Your task to perform on an android device: Go to settings Image 0: 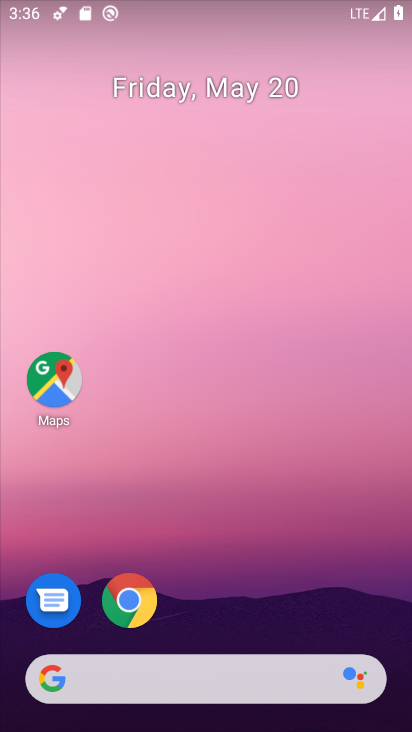
Step 0: drag from (386, 604) to (366, 220)
Your task to perform on an android device: Go to settings Image 1: 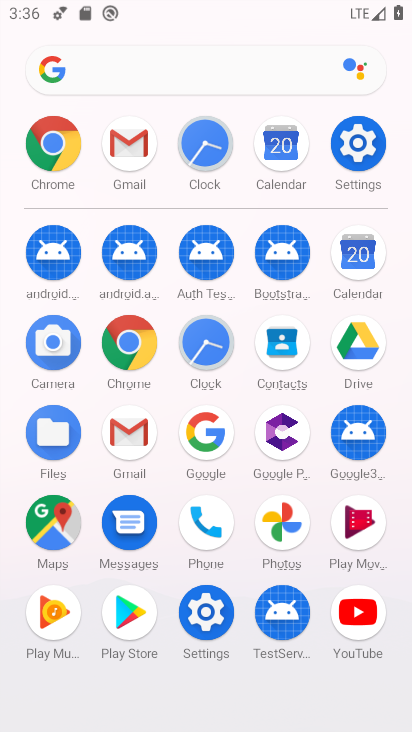
Step 1: click (344, 154)
Your task to perform on an android device: Go to settings Image 2: 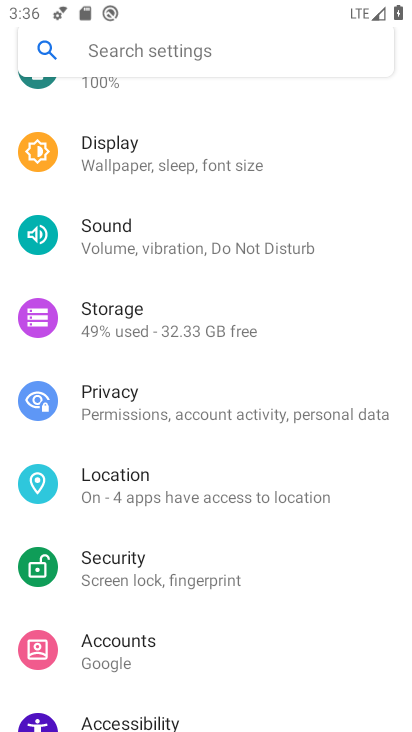
Step 2: task complete